Your task to perform on an android device: see tabs open on other devices in the chrome app Image 0: 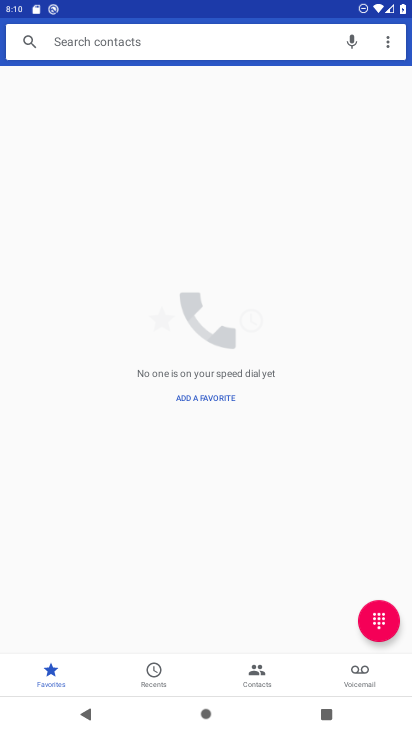
Step 0: press home button
Your task to perform on an android device: see tabs open on other devices in the chrome app Image 1: 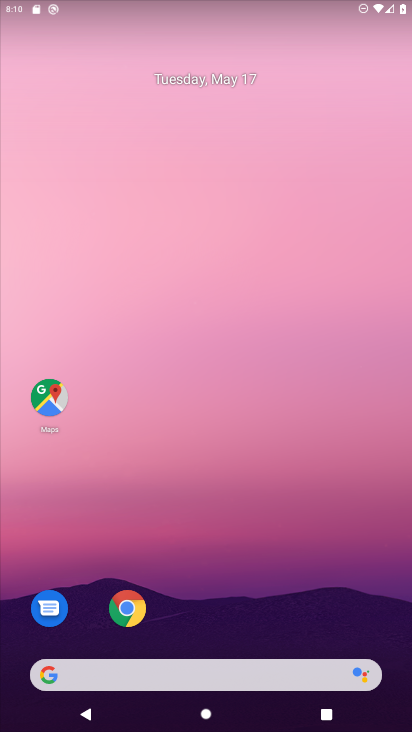
Step 1: click (134, 609)
Your task to perform on an android device: see tabs open on other devices in the chrome app Image 2: 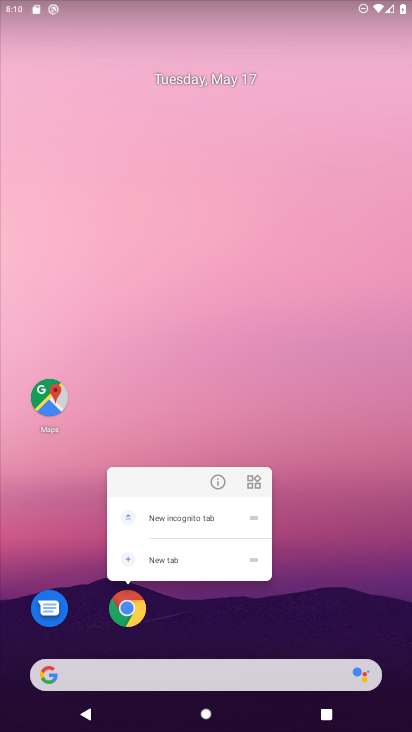
Step 2: click (146, 602)
Your task to perform on an android device: see tabs open on other devices in the chrome app Image 3: 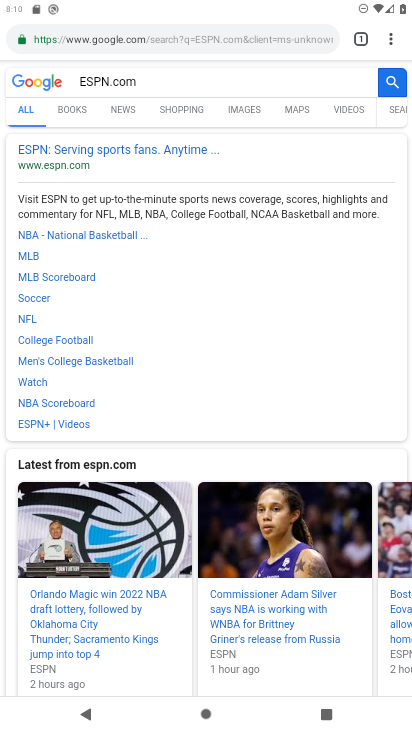
Step 3: click (397, 45)
Your task to perform on an android device: see tabs open on other devices in the chrome app Image 4: 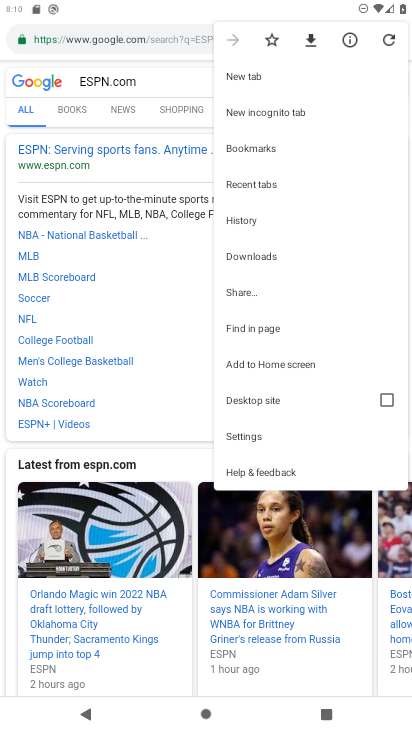
Step 4: click (270, 174)
Your task to perform on an android device: see tabs open on other devices in the chrome app Image 5: 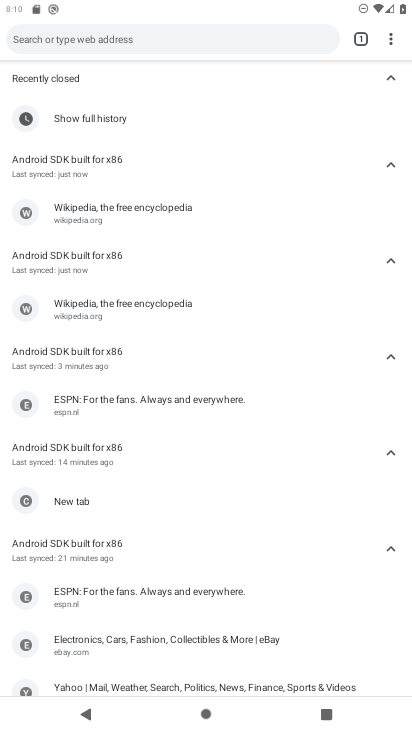
Step 5: task complete